Your task to perform on an android device: Open settings on Google Maps Image 0: 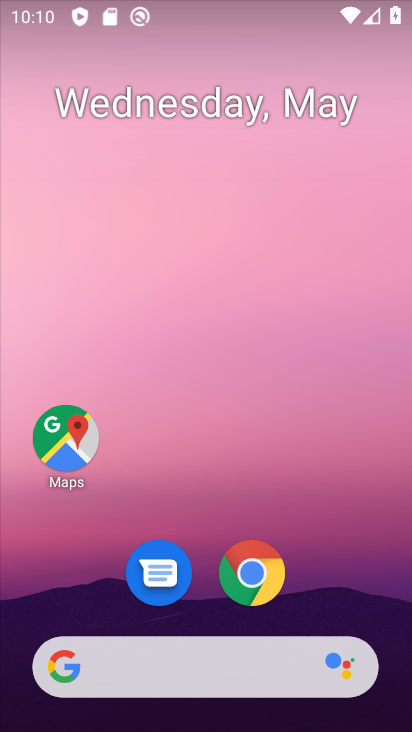
Step 0: drag from (247, 658) to (243, 163)
Your task to perform on an android device: Open settings on Google Maps Image 1: 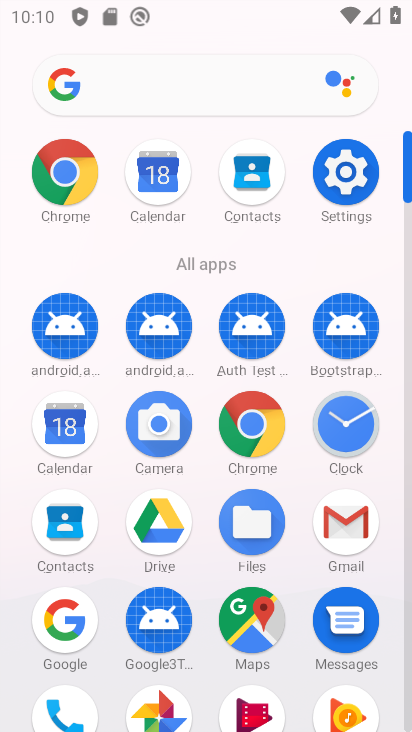
Step 1: drag from (369, 678) to (205, 78)
Your task to perform on an android device: Open settings on Google Maps Image 2: 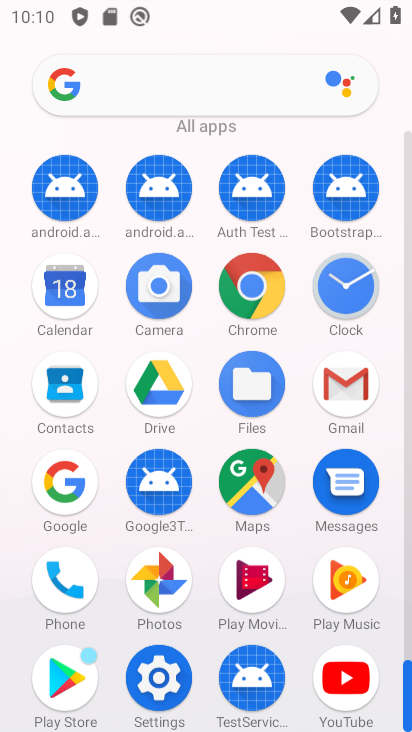
Step 2: drag from (277, 485) to (241, 288)
Your task to perform on an android device: Open settings on Google Maps Image 3: 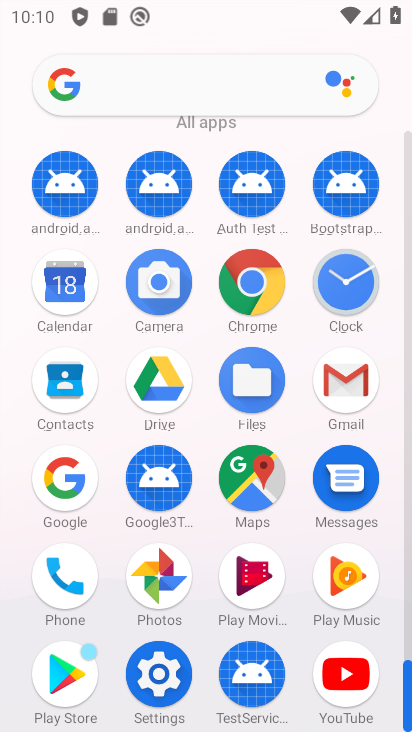
Step 3: click (211, 161)
Your task to perform on an android device: Open settings on Google Maps Image 4: 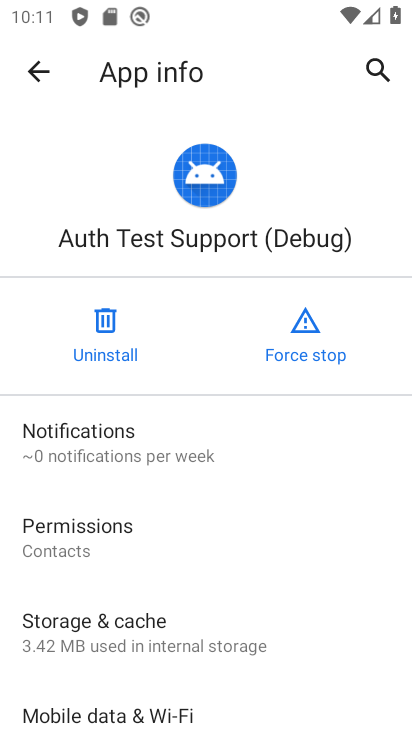
Step 4: click (36, 73)
Your task to perform on an android device: Open settings on Google Maps Image 5: 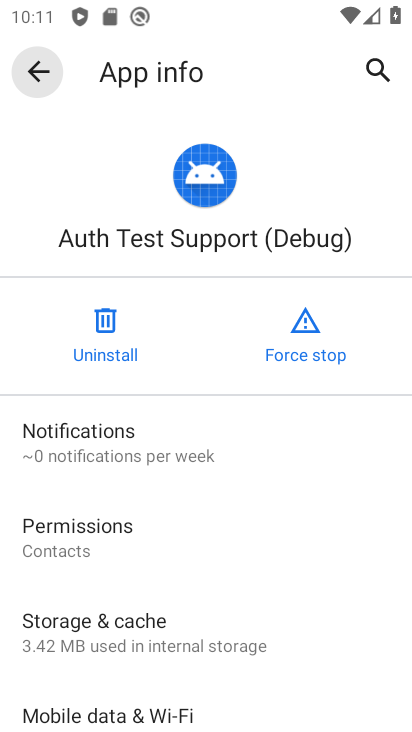
Step 5: click (35, 71)
Your task to perform on an android device: Open settings on Google Maps Image 6: 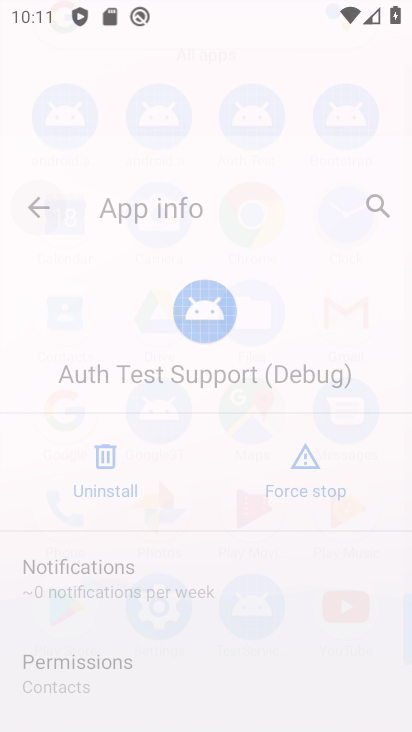
Step 6: click (35, 71)
Your task to perform on an android device: Open settings on Google Maps Image 7: 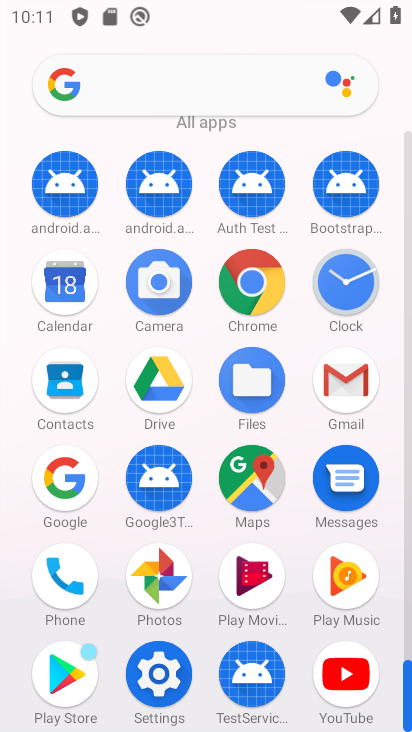
Step 7: click (34, 70)
Your task to perform on an android device: Open settings on Google Maps Image 8: 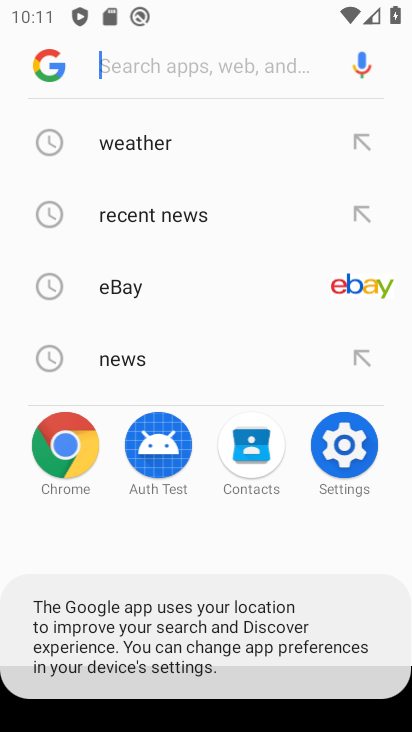
Step 8: press back button
Your task to perform on an android device: Open settings on Google Maps Image 9: 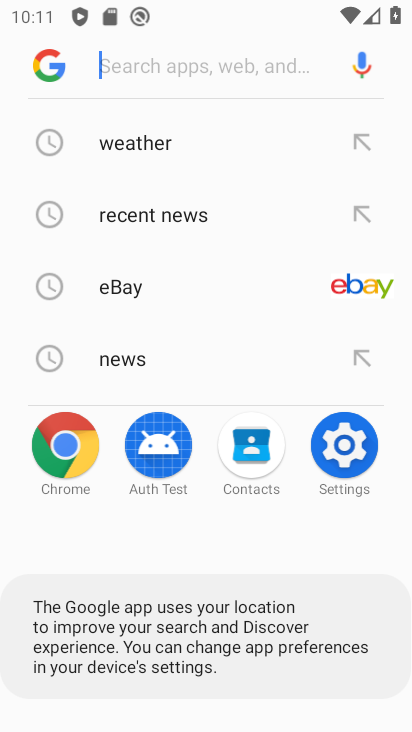
Step 9: press back button
Your task to perform on an android device: Open settings on Google Maps Image 10: 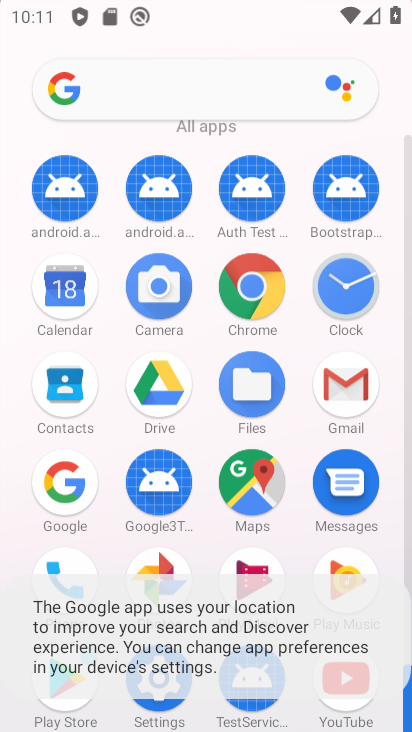
Step 10: press back button
Your task to perform on an android device: Open settings on Google Maps Image 11: 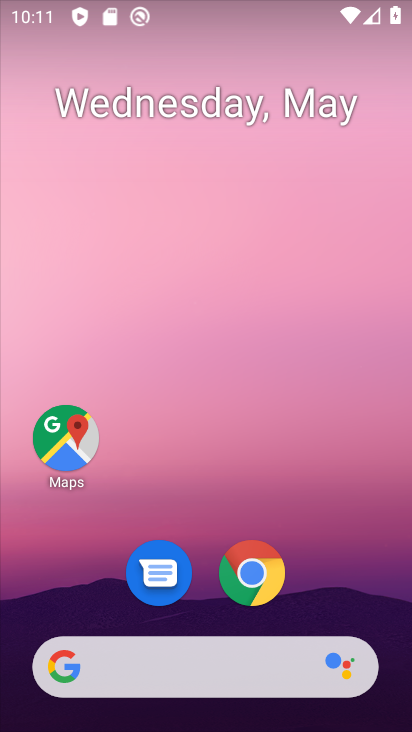
Step 11: drag from (387, 639) to (168, 27)
Your task to perform on an android device: Open settings on Google Maps Image 12: 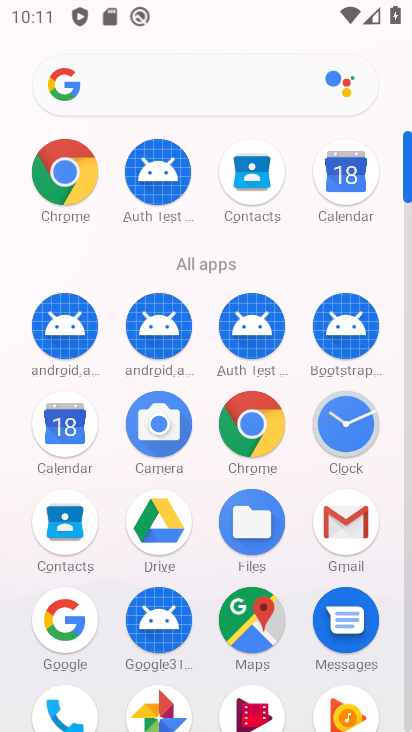
Step 12: click (261, 627)
Your task to perform on an android device: Open settings on Google Maps Image 13: 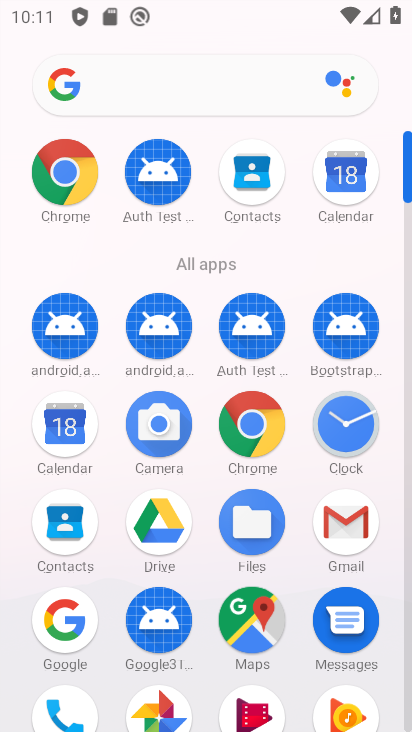
Step 13: click (261, 627)
Your task to perform on an android device: Open settings on Google Maps Image 14: 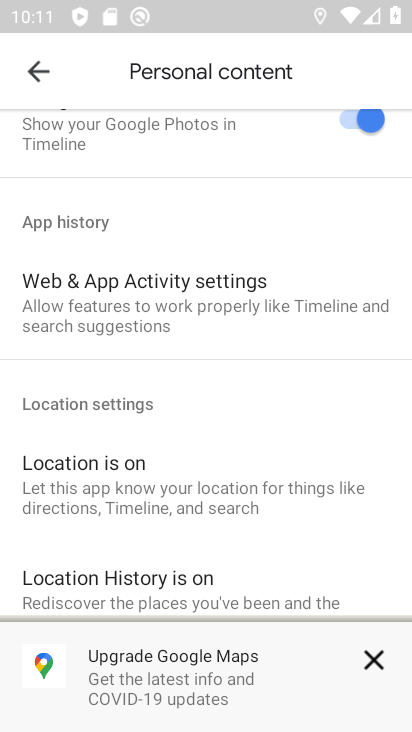
Step 14: drag from (131, 412) to (129, 77)
Your task to perform on an android device: Open settings on Google Maps Image 15: 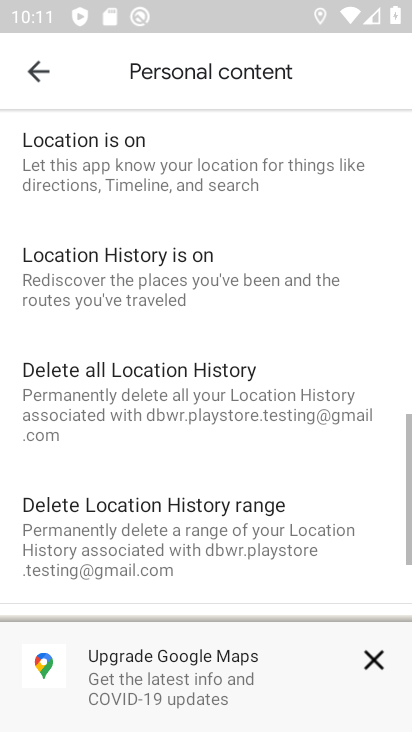
Step 15: drag from (168, 300) to (179, 465)
Your task to perform on an android device: Open settings on Google Maps Image 16: 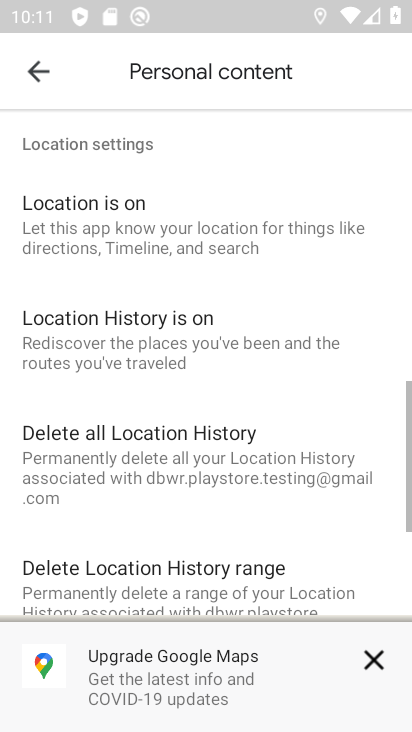
Step 16: drag from (134, 250) to (172, 474)
Your task to perform on an android device: Open settings on Google Maps Image 17: 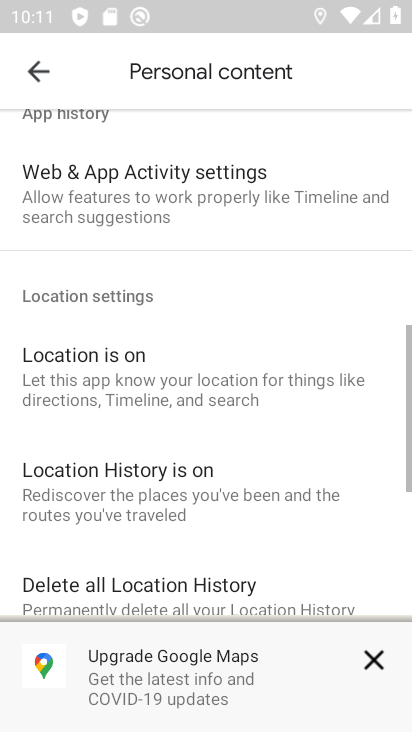
Step 17: drag from (107, 224) to (223, 639)
Your task to perform on an android device: Open settings on Google Maps Image 18: 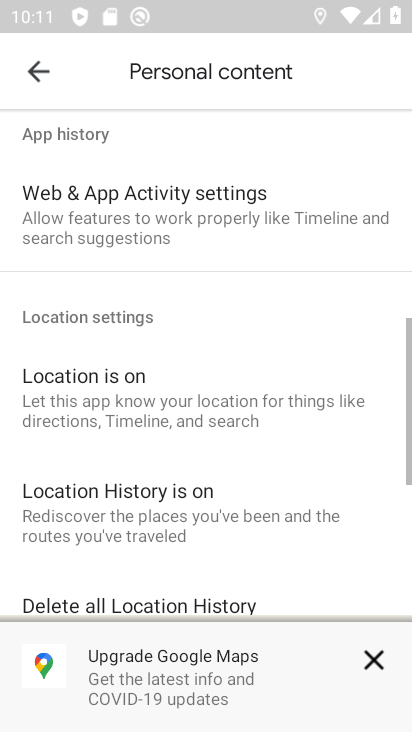
Step 18: drag from (170, 268) to (219, 520)
Your task to perform on an android device: Open settings on Google Maps Image 19: 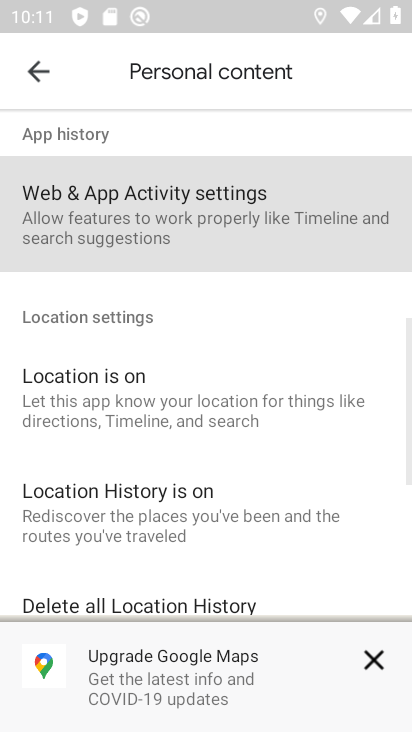
Step 19: drag from (169, 266) to (206, 519)
Your task to perform on an android device: Open settings on Google Maps Image 20: 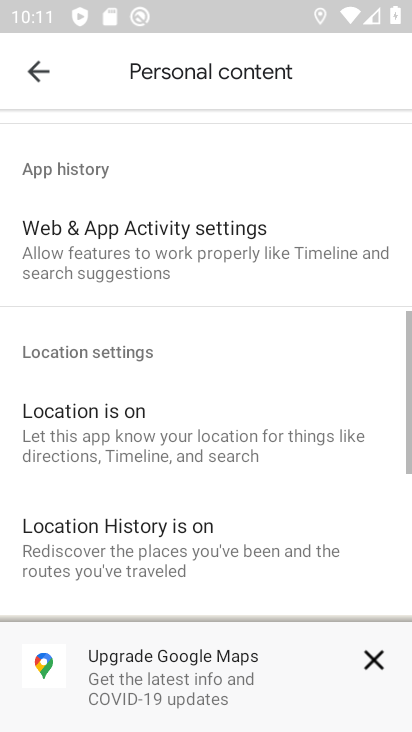
Step 20: drag from (154, 245) to (201, 493)
Your task to perform on an android device: Open settings on Google Maps Image 21: 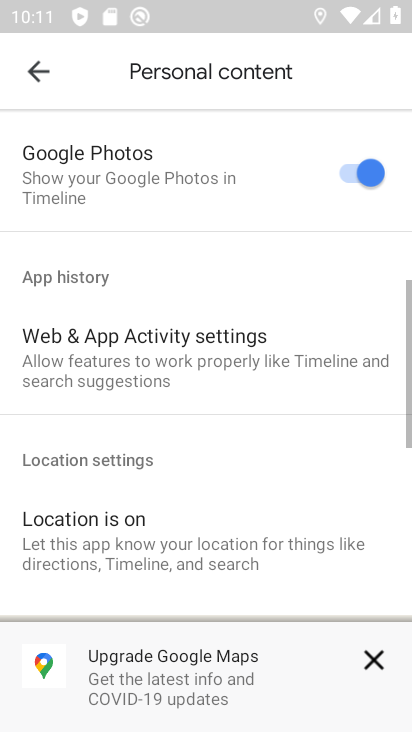
Step 21: drag from (124, 250) to (169, 488)
Your task to perform on an android device: Open settings on Google Maps Image 22: 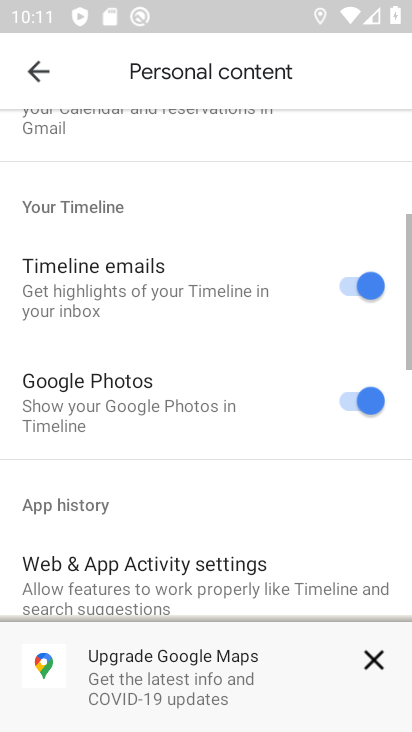
Step 22: drag from (134, 282) to (260, 614)
Your task to perform on an android device: Open settings on Google Maps Image 23: 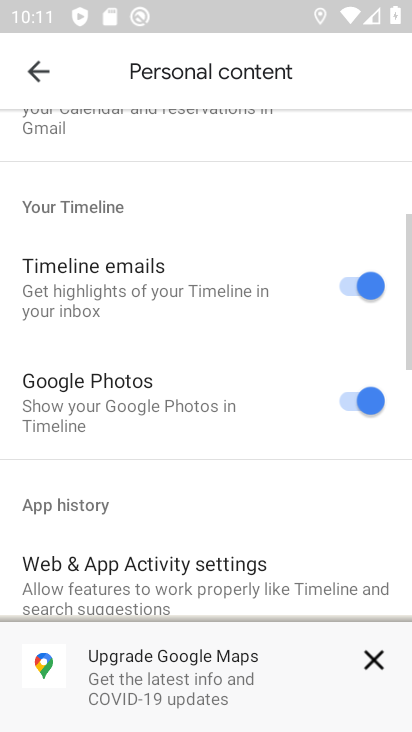
Step 23: drag from (43, 112) to (206, 532)
Your task to perform on an android device: Open settings on Google Maps Image 24: 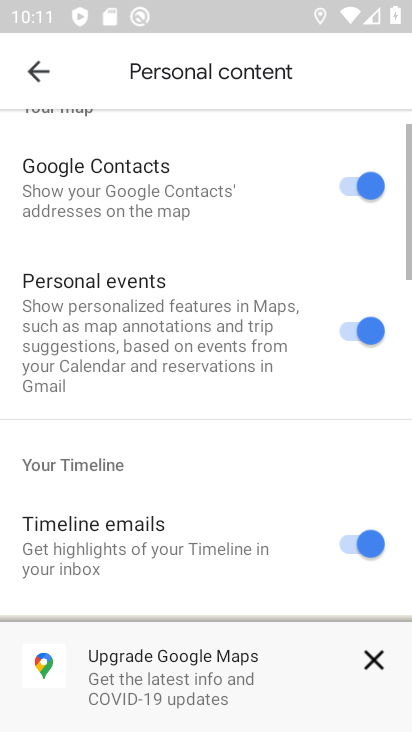
Step 24: drag from (151, 255) to (222, 523)
Your task to perform on an android device: Open settings on Google Maps Image 25: 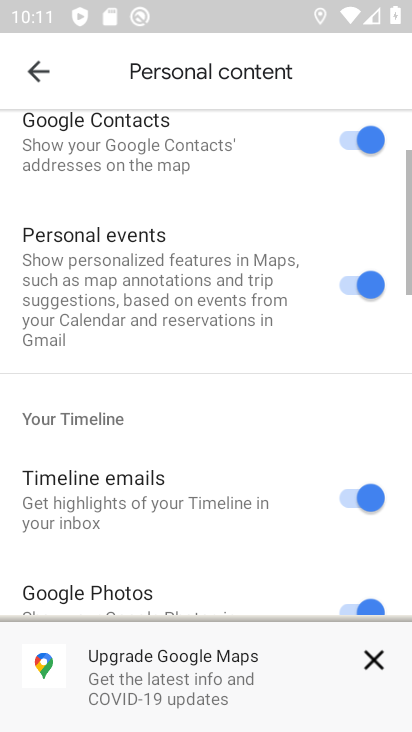
Step 25: drag from (86, 158) to (125, 500)
Your task to perform on an android device: Open settings on Google Maps Image 26: 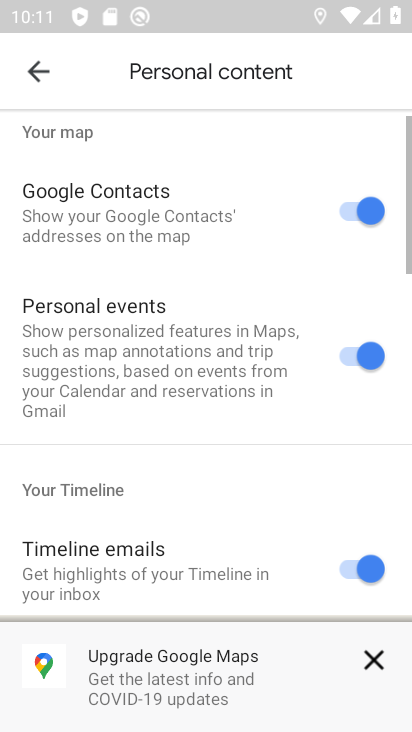
Step 26: drag from (92, 242) to (156, 500)
Your task to perform on an android device: Open settings on Google Maps Image 27: 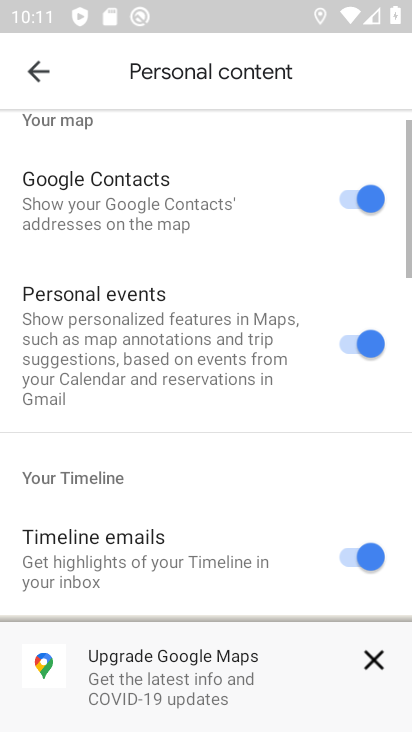
Step 27: drag from (94, 226) to (162, 596)
Your task to perform on an android device: Open settings on Google Maps Image 28: 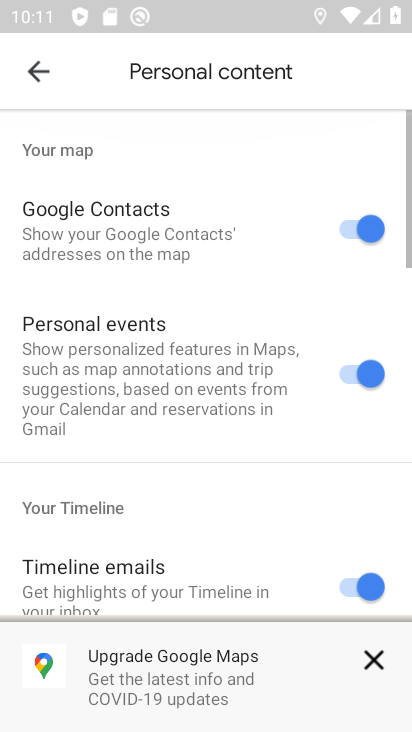
Step 28: click (124, 587)
Your task to perform on an android device: Open settings on Google Maps Image 29: 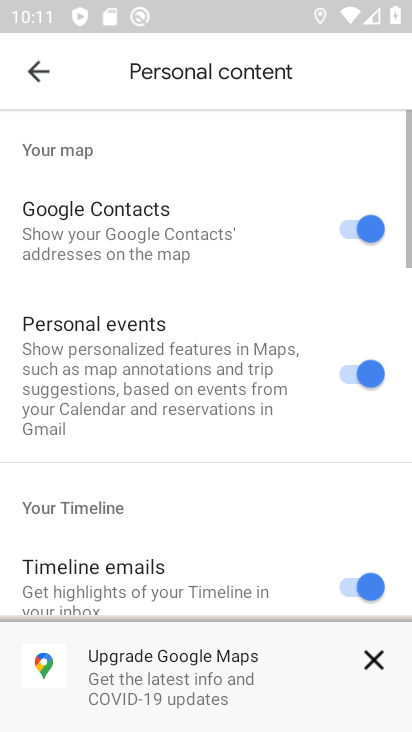
Step 29: drag from (64, 180) to (215, 621)
Your task to perform on an android device: Open settings on Google Maps Image 30: 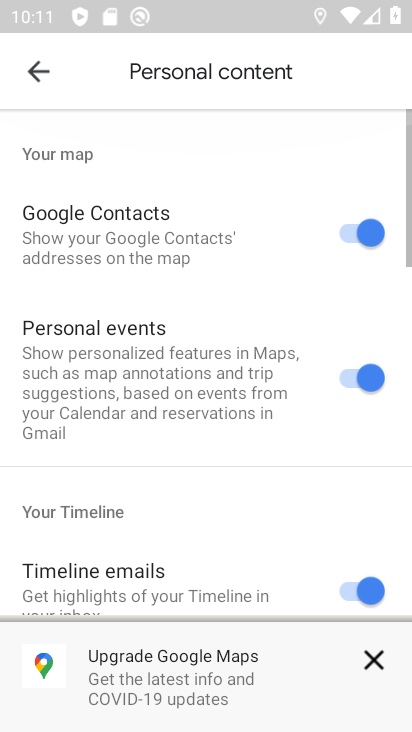
Step 30: drag from (130, 363) to (239, 636)
Your task to perform on an android device: Open settings on Google Maps Image 31: 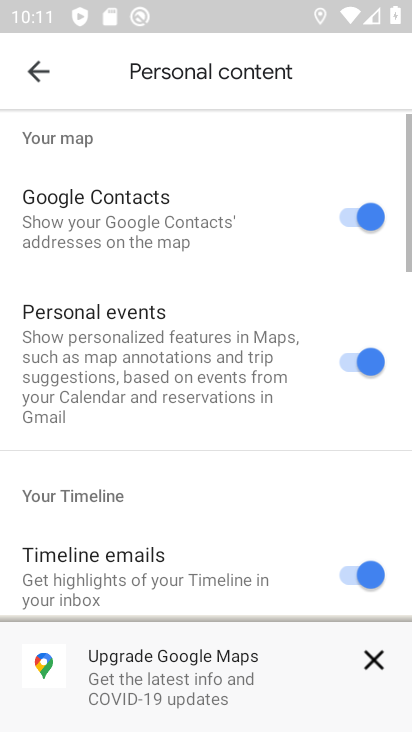
Step 31: click (242, 535)
Your task to perform on an android device: Open settings on Google Maps Image 32: 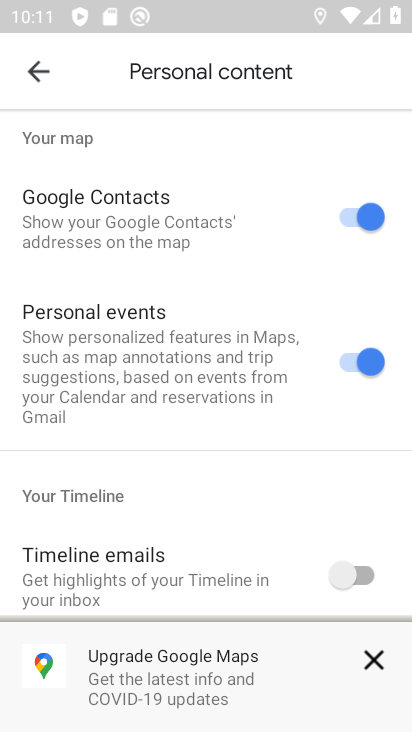
Step 32: task complete